Your task to perform on an android device: Open privacy settings Image 0: 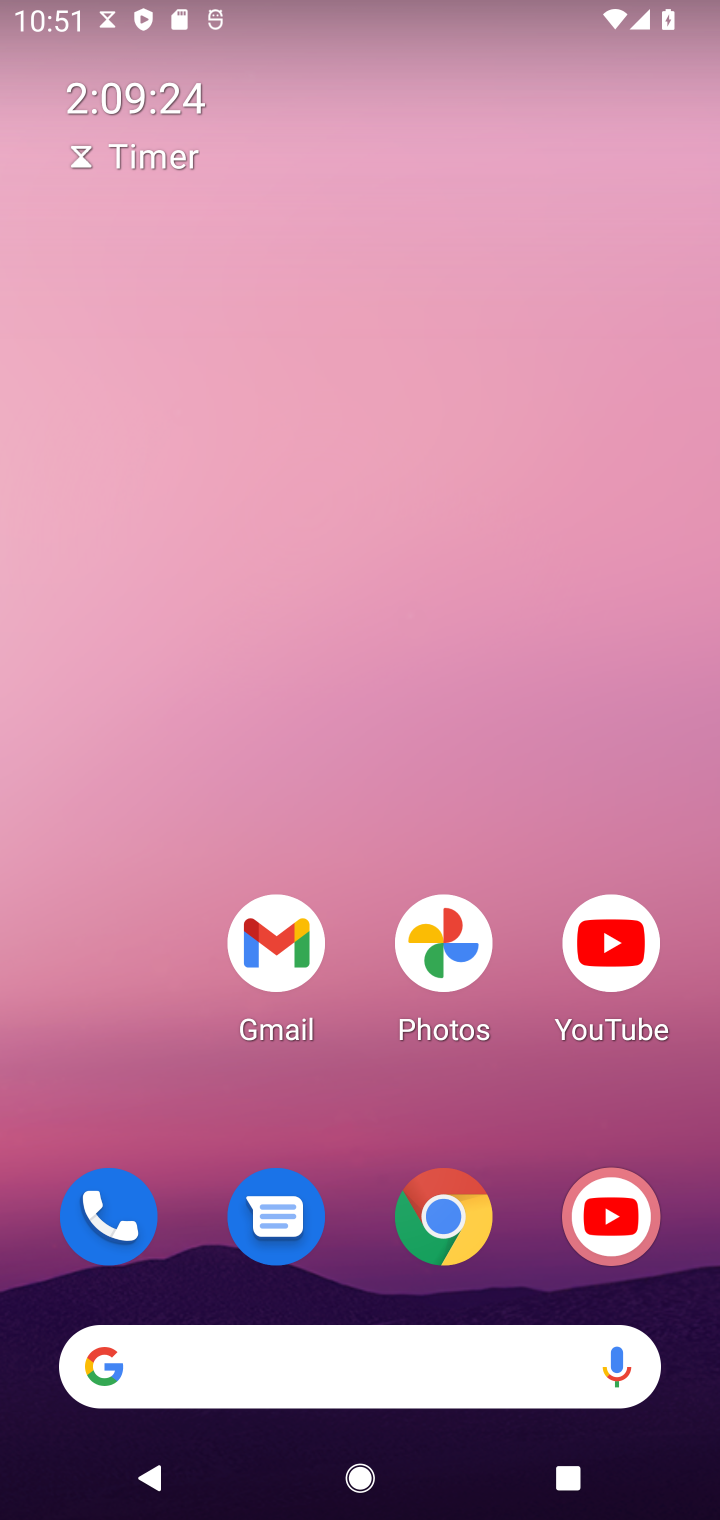
Step 0: drag from (233, 1117) to (235, 22)
Your task to perform on an android device: Open privacy settings Image 1: 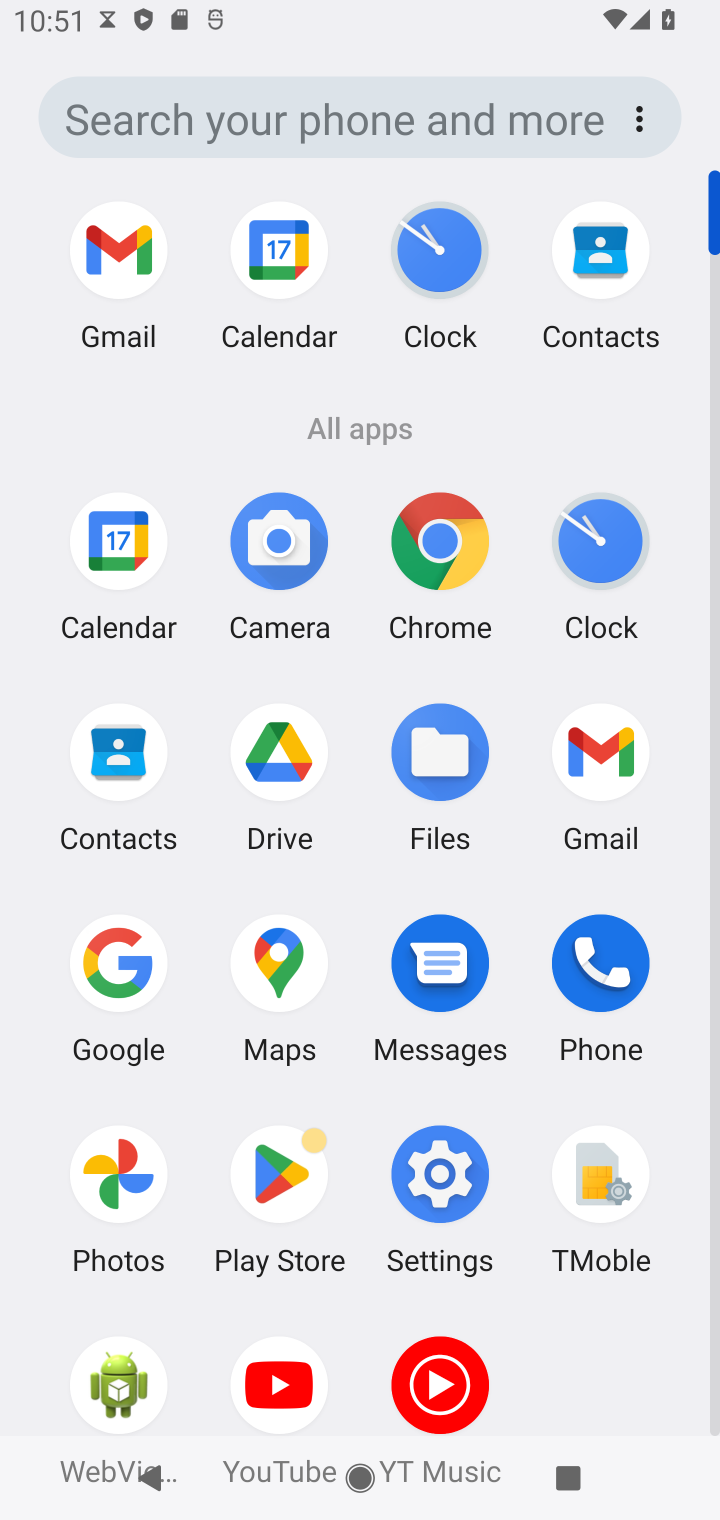
Step 1: click (427, 1199)
Your task to perform on an android device: Open privacy settings Image 2: 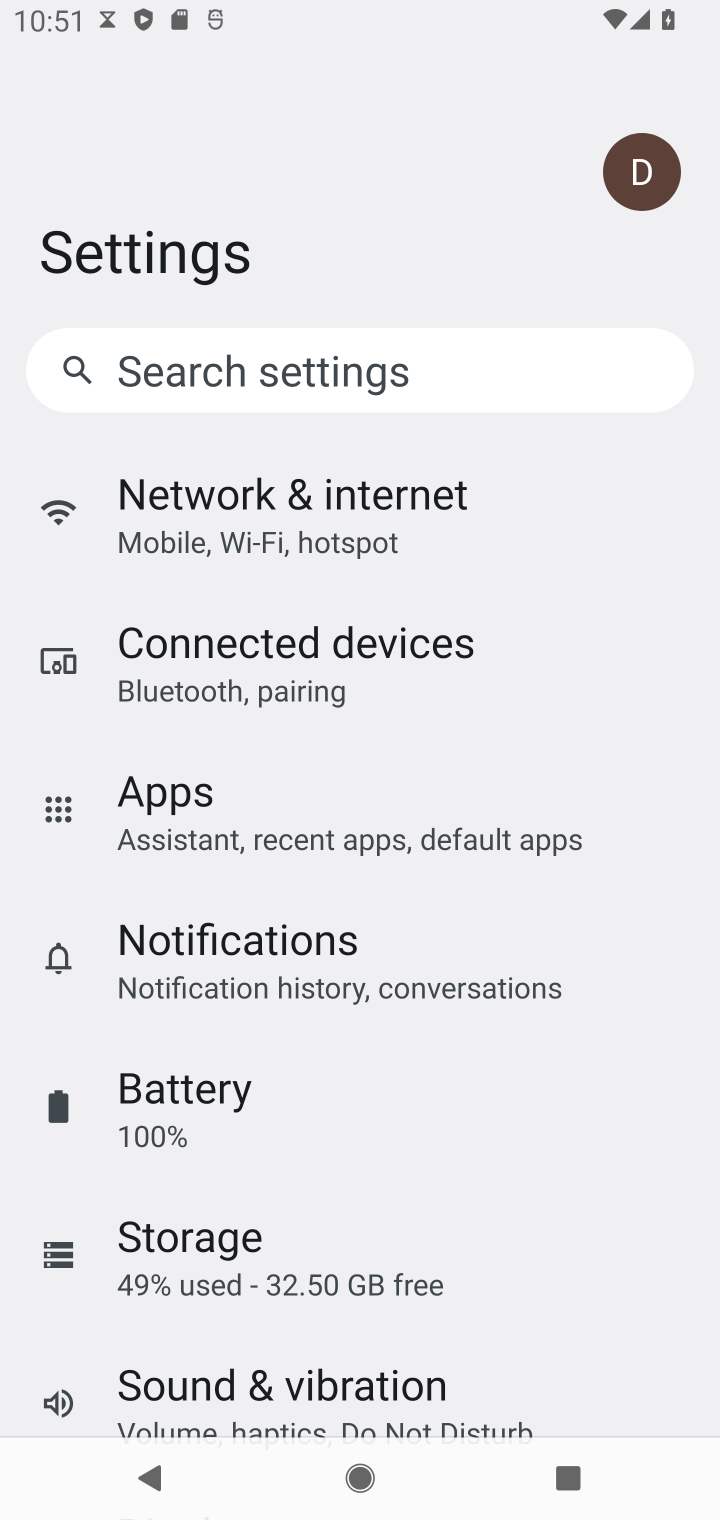
Step 2: drag from (284, 1320) to (371, 1513)
Your task to perform on an android device: Open privacy settings Image 3: 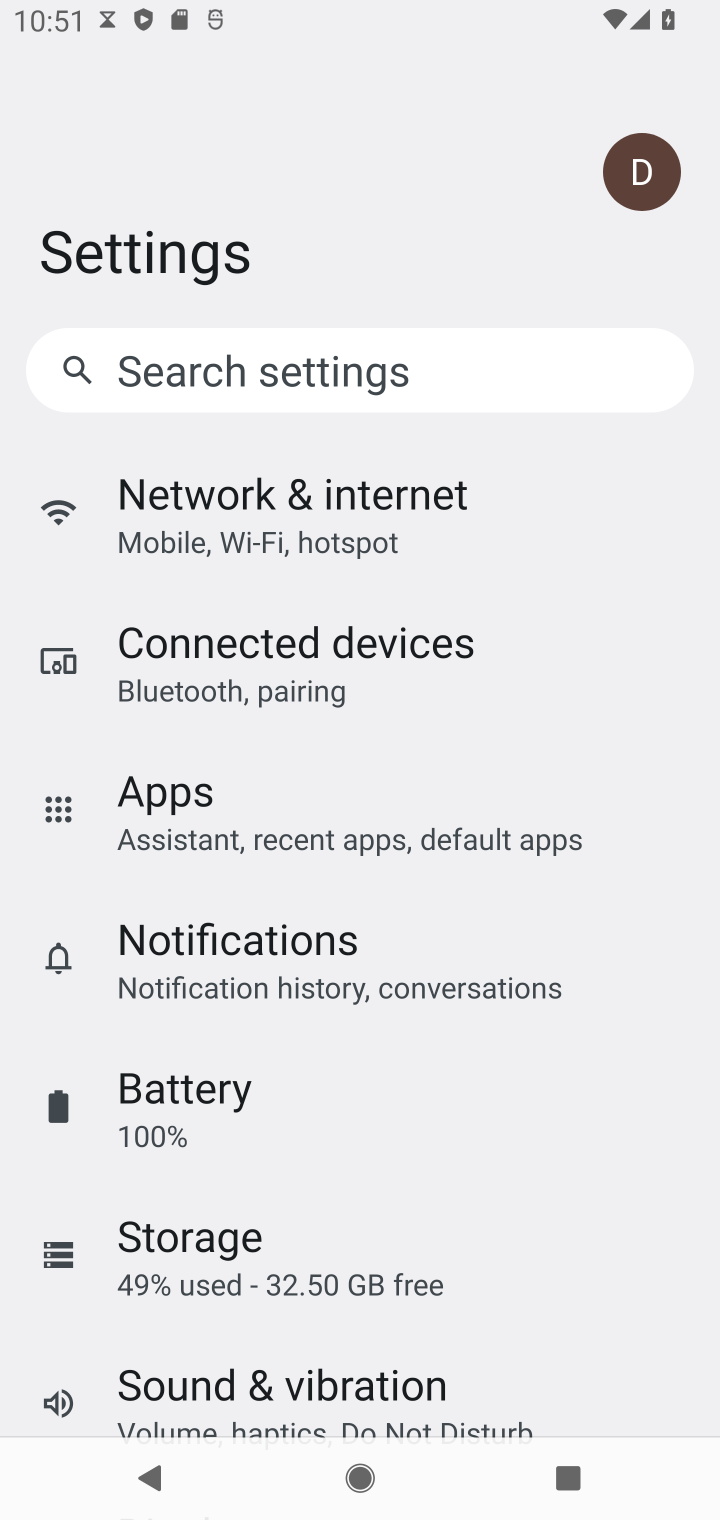
Step 3: drag from (328, 1339) to (440, 474)
Your task to perform on an android device: Open privacy settings Image 4: 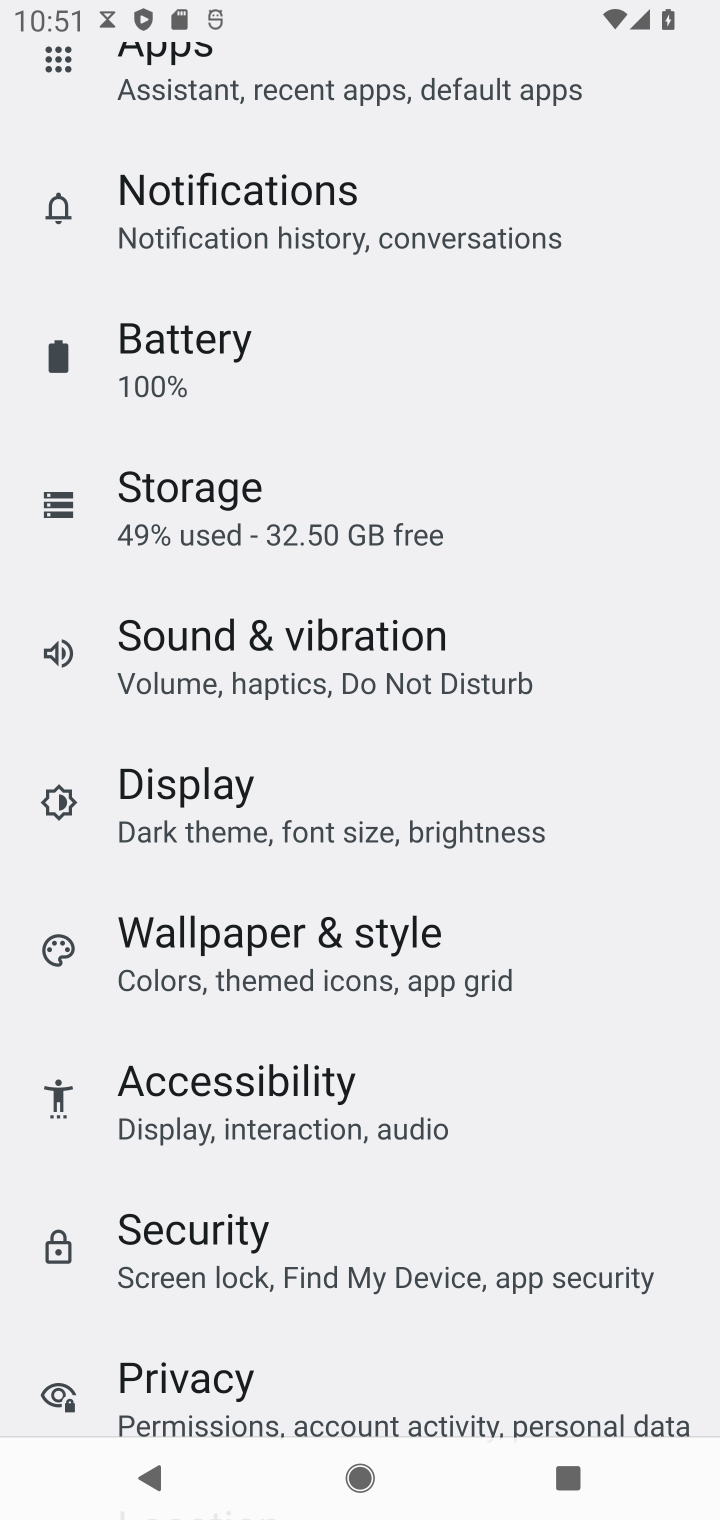
Step 4: click (239, 1377)
Your task to perform on an android device: Open privacy settings Image 5: 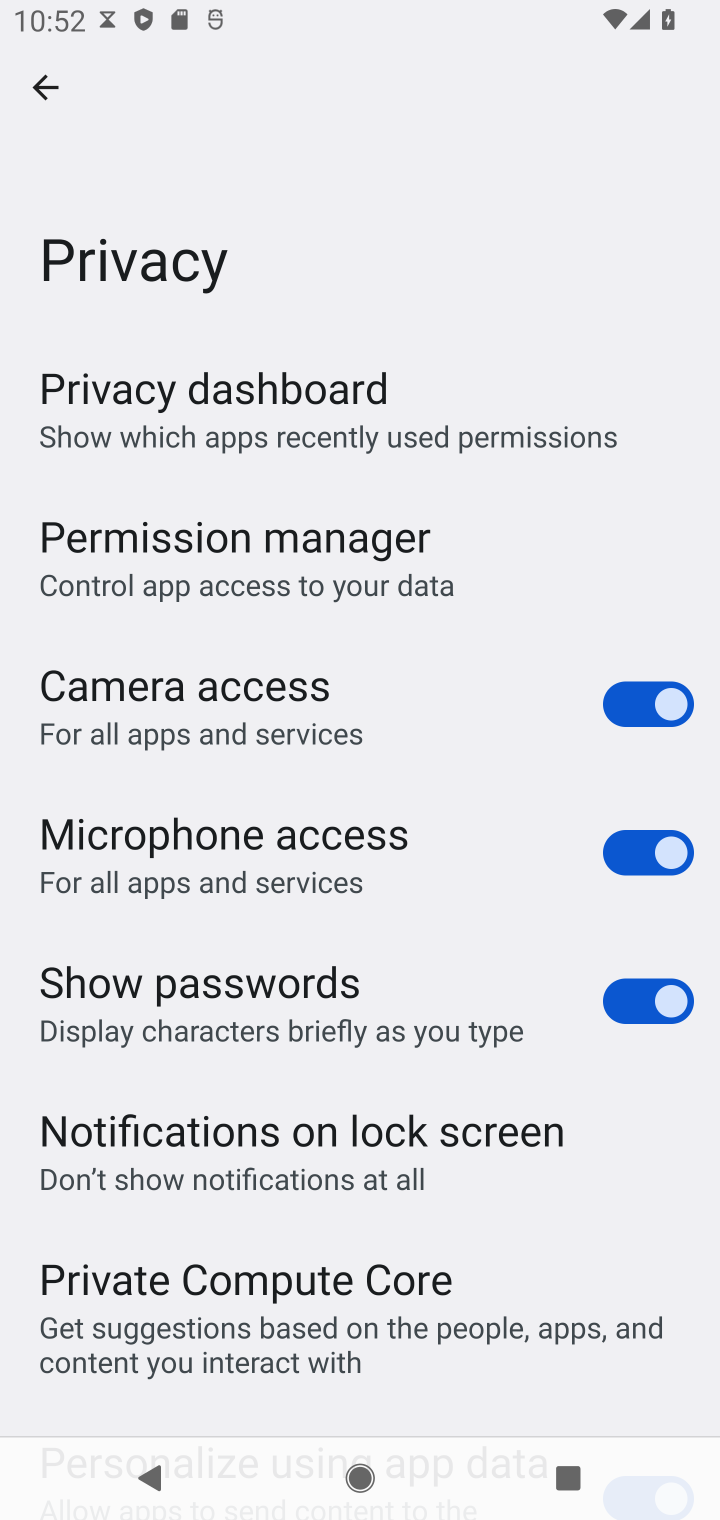
Step 5: task complete